Your task to perform on an android device: check the backup settings in the google photos Image 0: 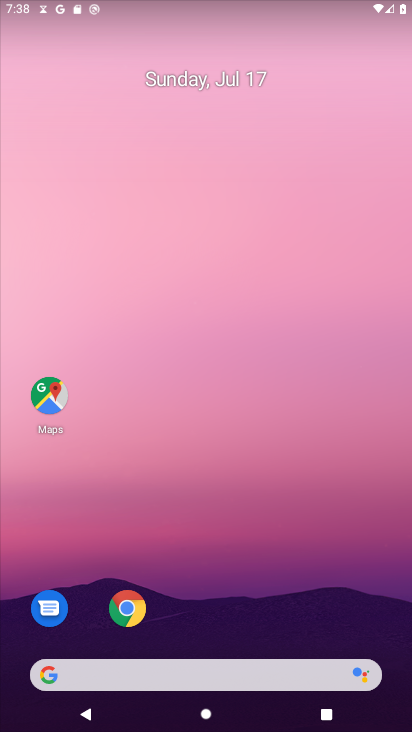
Step 0: drag from (177, 565) to (225, 186)
Your task to perform on an android device: check the backup settings in the google photos Image 1: 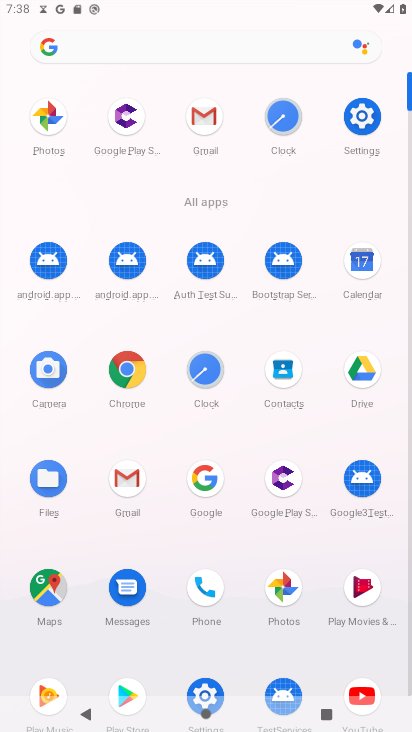
Step 1: click (291, 582)
Your task to perform on an android device: check the backup settings in the google photos Image 2: 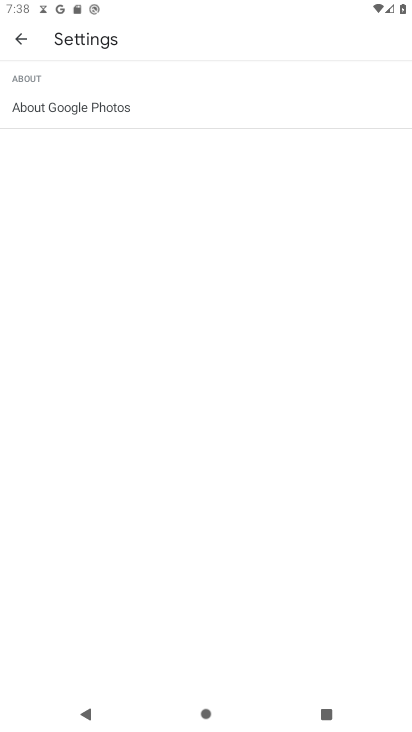
Step 2: click (25, 40)
Your task to perform on an android device: check the backup settings in the google photos Image 3: 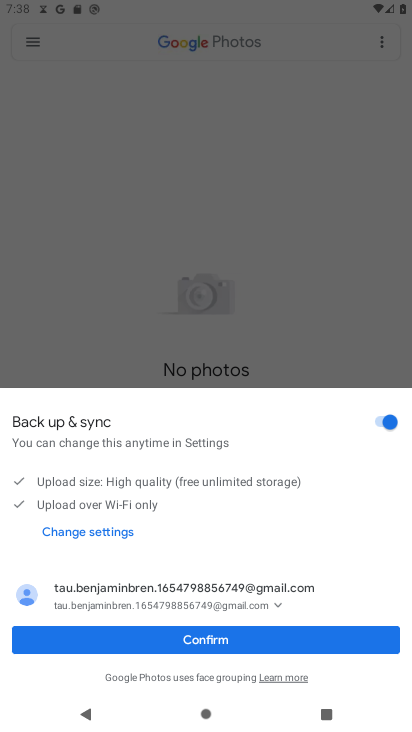
Step 3: click (171, 635)
Your task to perform on an android device: check the backup settings in the google photos Image 4: 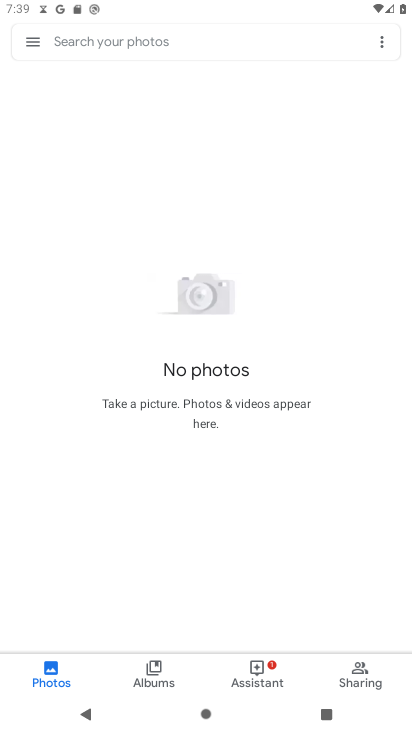
Step 4: click (31, 40)
Your task to perform on an android device: check the backup settings in the google photos Image 5: 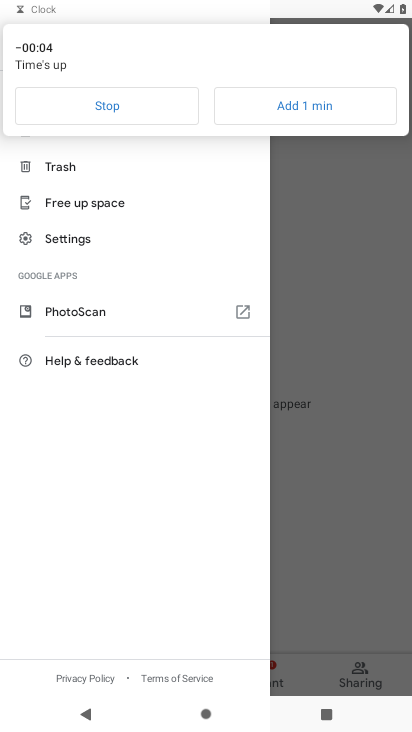
Step 5: click (60, 240)
Your task to perform on an android device: check the backup settings in the google photos Image 6: 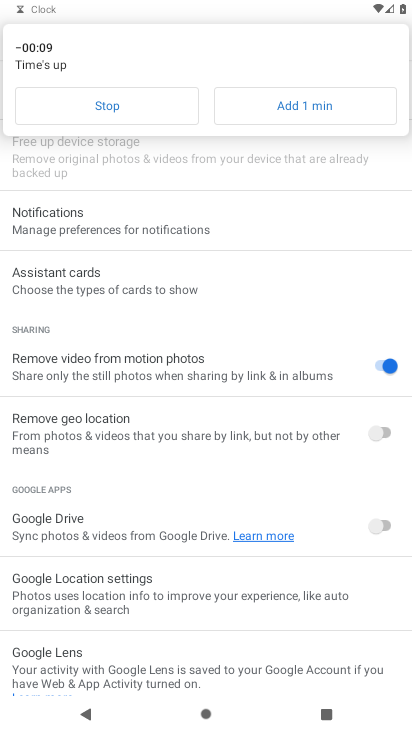
Step 6: click (127, 99)
Your task to perform on an android device: check the backup settings in the google photos Image 7: 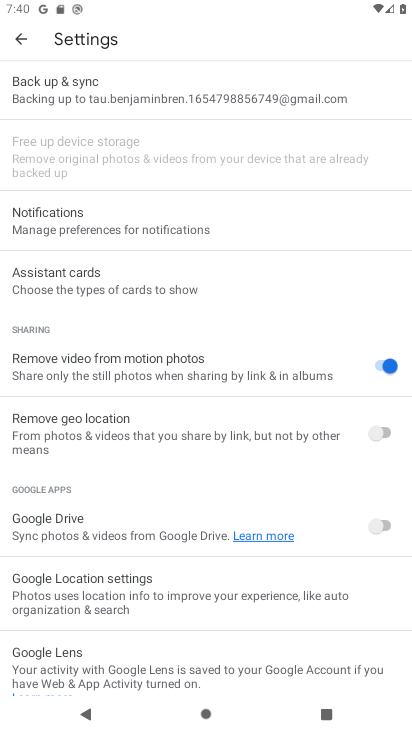
Step 7: click (104, 93)
Your task to perform on an android device: check the backup settings in the google photos Image 8: 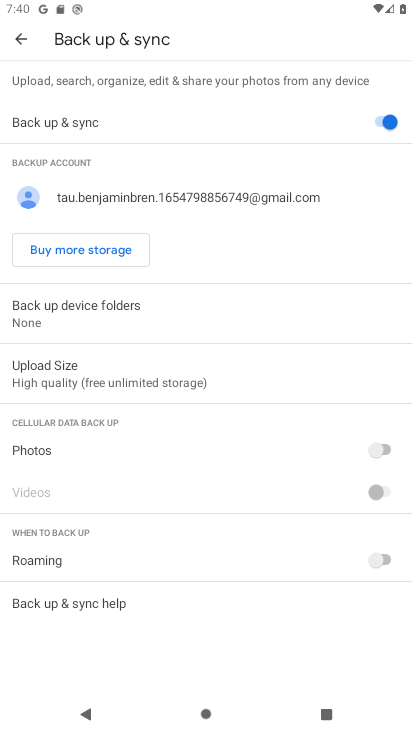
Step 8: task complete